Your task to perform on an android device: uninstall "Reddit" Image 0: 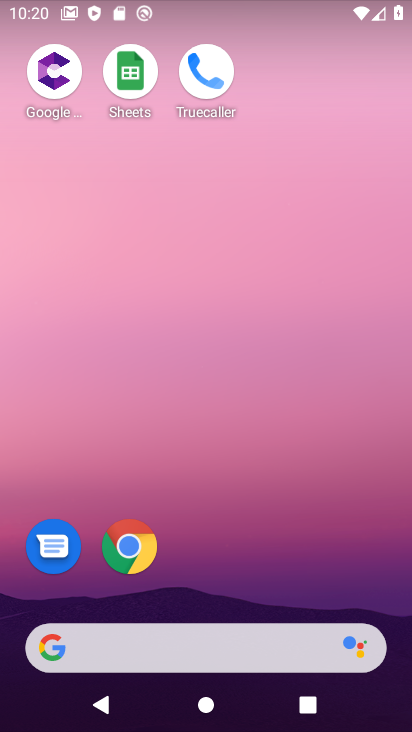
Step 0: drag from (259, 665) to (228, 137)
Your task to perform on an android device: uninstall "Reddit" Image 1: 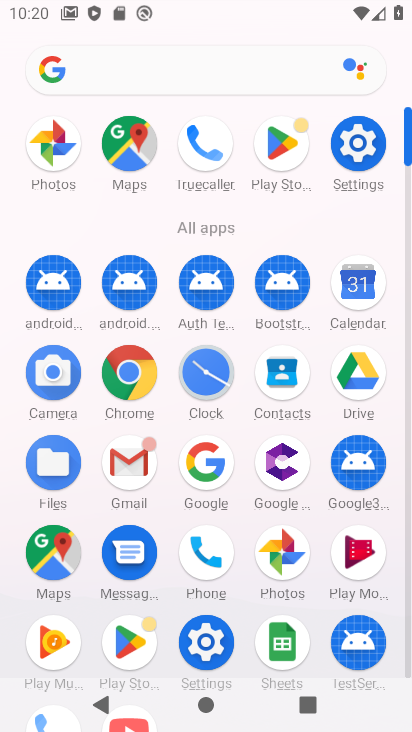
Step 1: click (287, 153)
Your task to perform on an android device: uninstall "Reddit" Image 2: 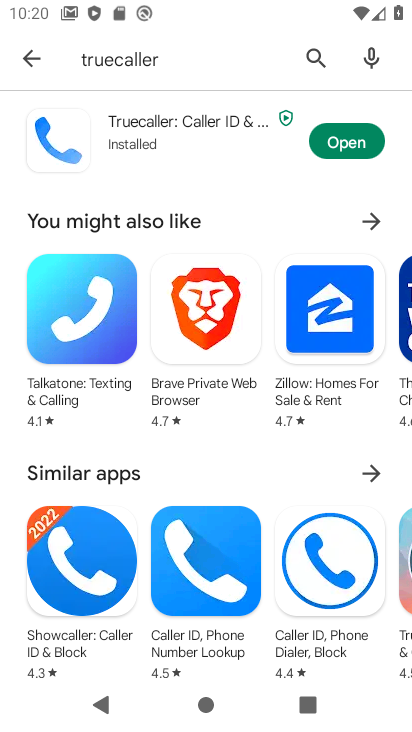
Step 2: click (327, 65)
Your task to perform on an android device: uninstall "Reddit" Image 3: 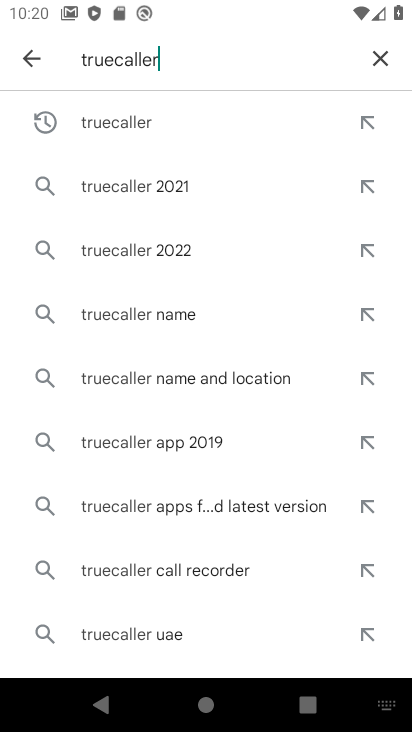
Step 3: click (390, 51)
Your task to perform on an android device: uninstall "Reddit" Image 4: 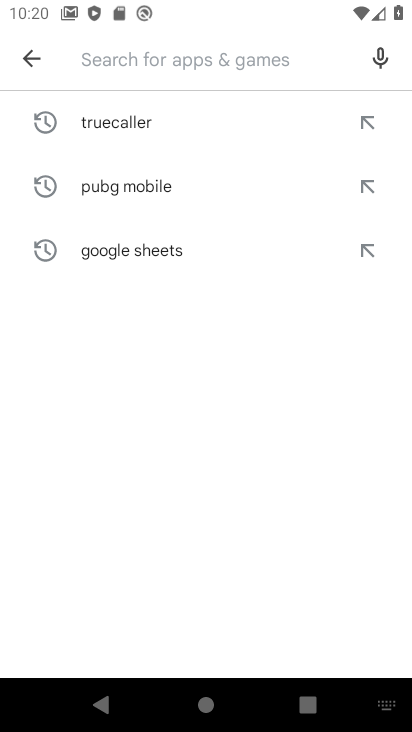
Step 4: type "reddit"
Your task to perform on an android device: uninstall "Reddit" Image 5: 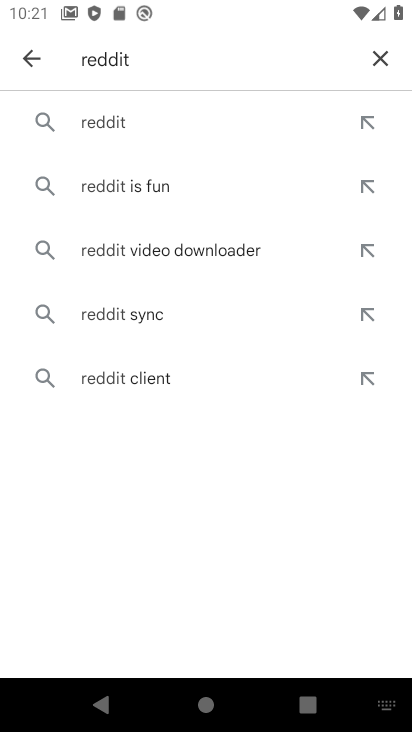
Step 5: click (188, 113)
Your task to perform on an android device: uninstall "Reddit" Image 6: 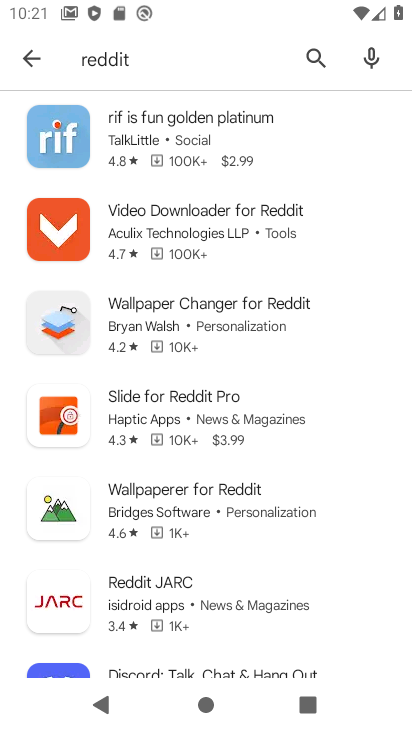
Step 6: task complete